Your task to perform on an android device: open wifi settings Image 0: 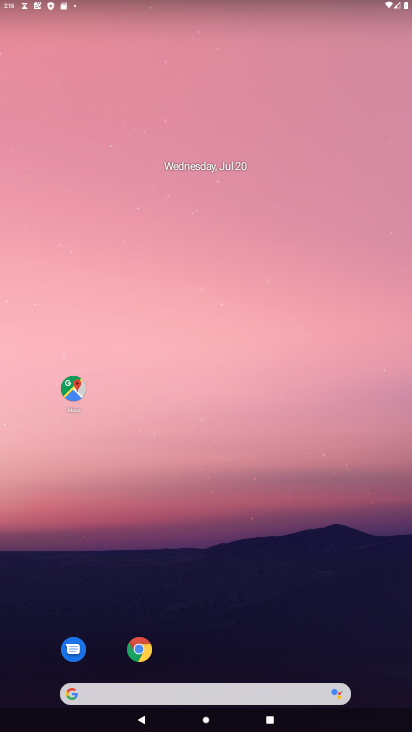
Step 0: drag from (211, 665) to (295, 2)
Your task to perform on an android device: open wifi settings Image 1: 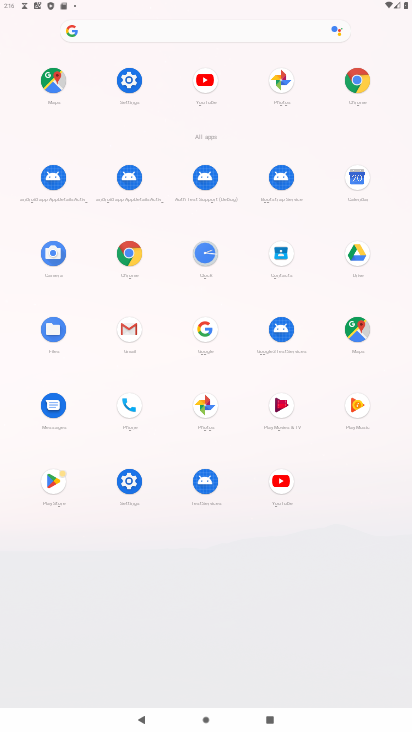
Step 1: click (134, 496)
Your task to perform on an android device: open wifi settings Image 2: 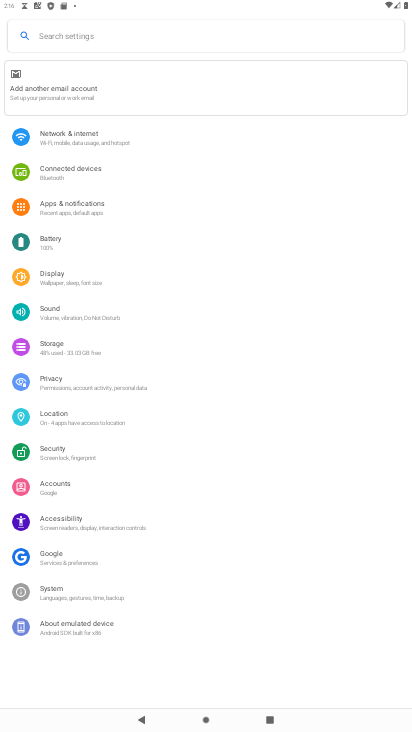
Step 2: click (102, 144)
Your task to perform on an android device: open wifi settings Image 3: 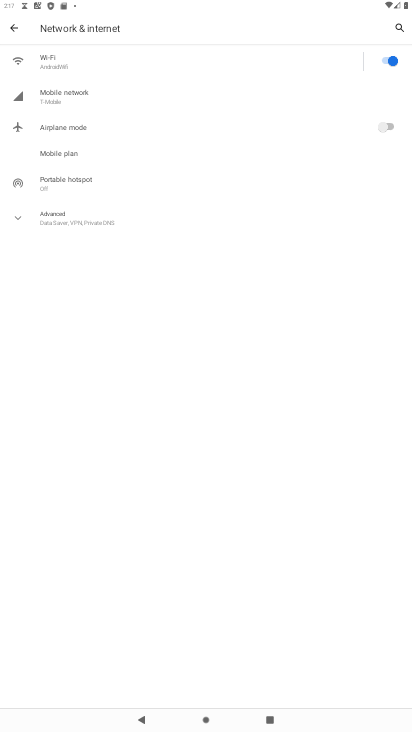
Step 3: click (77, 50)
Your task to perform on an android device: open wifi settings Image 4: 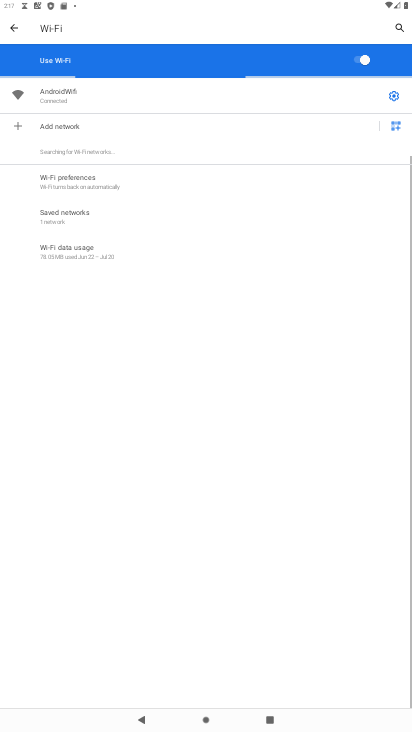
Step 4: task complete